Your task to perform on an android device: see creations saved in the google photos Image 0: 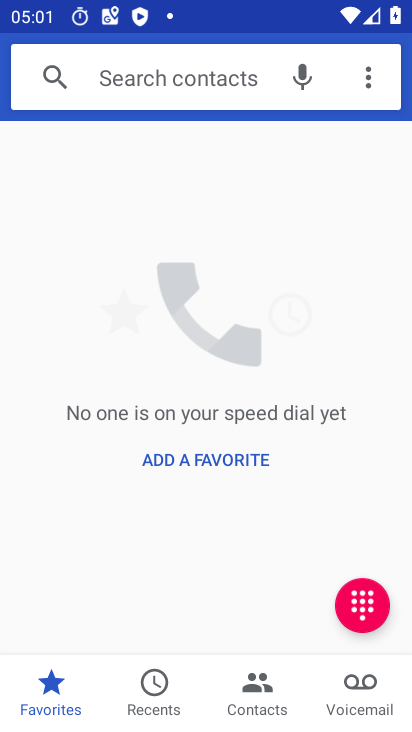
Step 0: press home button
Your task to perform on an android device: see creations saved in the google photos Image 1: 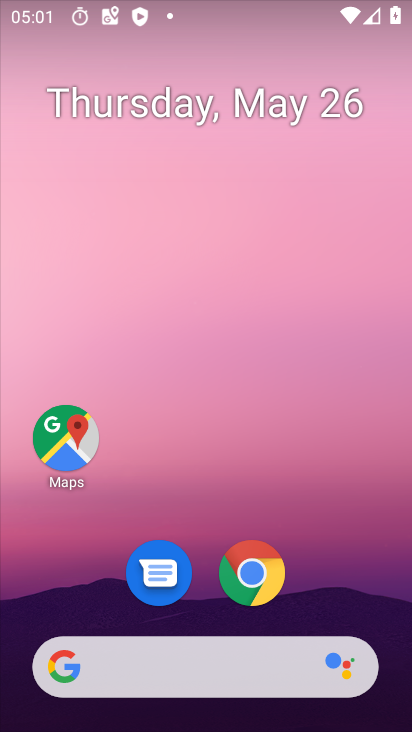
Step 1: drag from (289, 616) to (255, 146)
Your task to perform on an android device: see creations saved in the google photos Image 2: 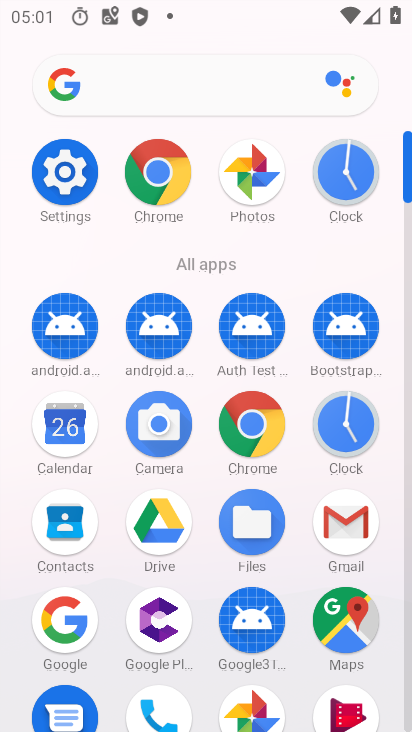
Step 2: click (262, 701)
Your task to perform on an android device: see creations saved in the google photos Image 3: 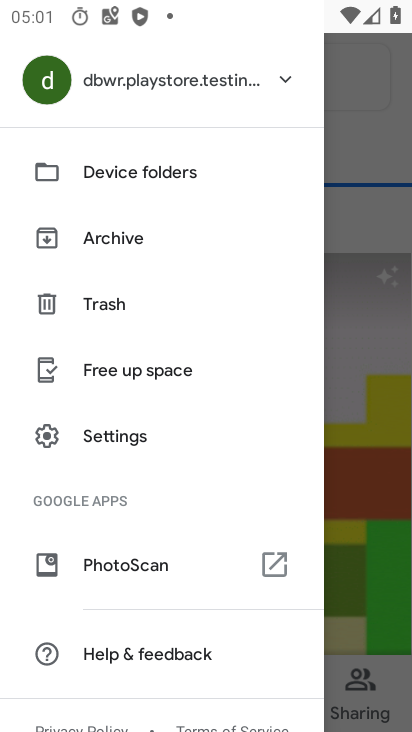
Step 3: press back button
Your task to perform on an android device: see creations saved in the google photos Image 4: 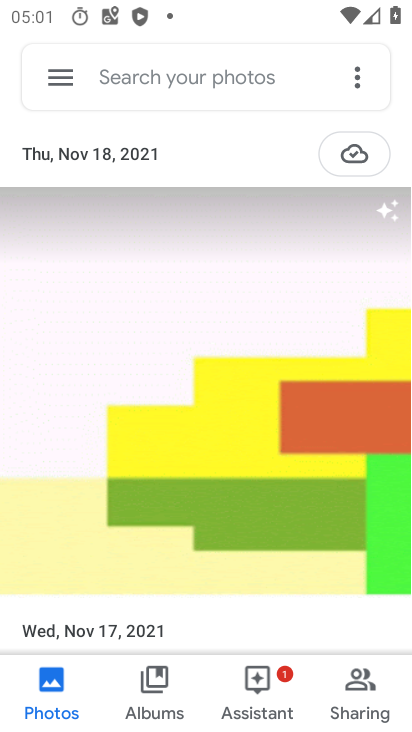
Step 4: click (151, 76)
Your task to perform on an android device: see creations saved in the google photos Image 5: 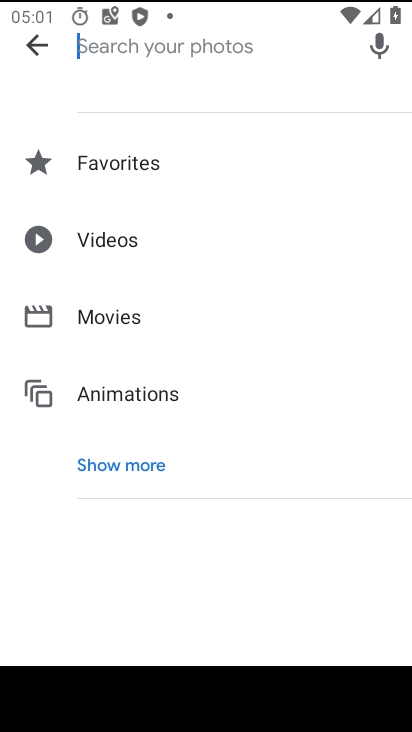
Step 5: click (123, 470)
Your task to perform on an android device: see creations saved in the google photos Image 6: 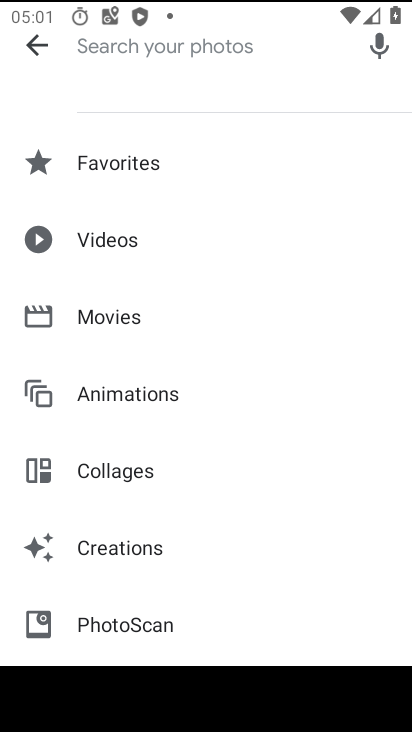
Step 6: click (114, 546)
Your task to perform on an android device: see creations saved in the google photos Image 7: 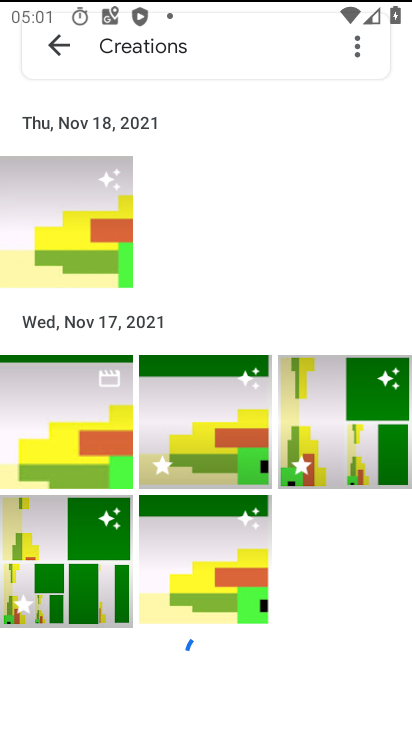
Step 7: task complete